Your task to perform on an android device: refresh tabs in the chrome app Image 0: 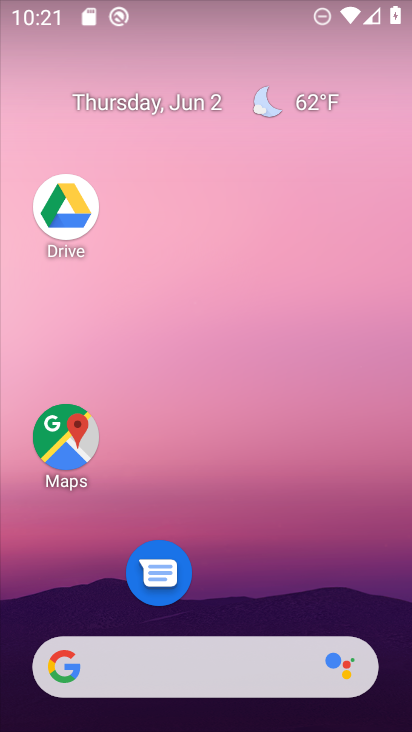
Step 0: drag from (246, 619) to (230, 76)
Your task to perform on an android device: refresh tabs in the chrome app Image 1: 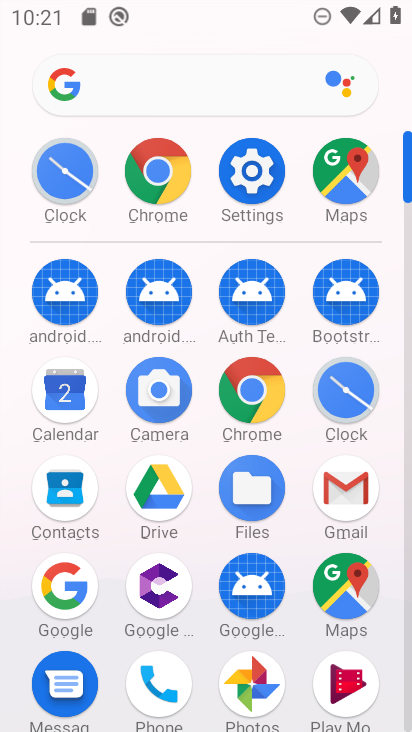
Step 1: click (140, 170)
Your task to perform on an android device: refresh tabs in the chrome app Image 2: 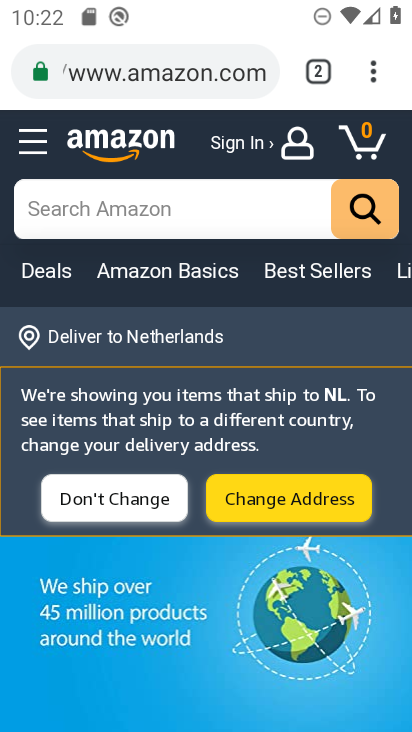
Step 2: click (366, 83)
Your task to perform on an android device: refresh tabs in the chrome app Image 3: 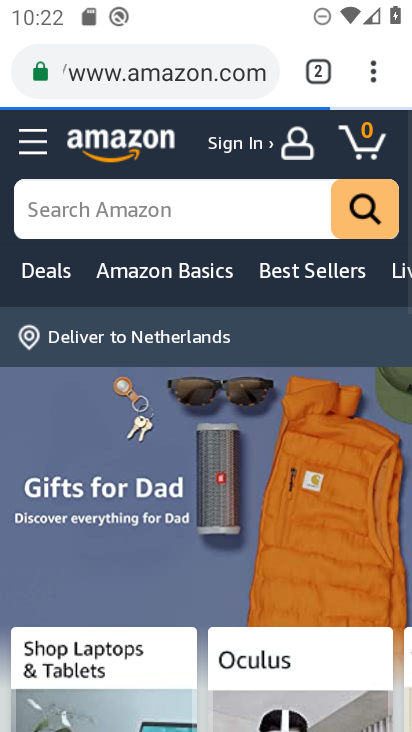
Step 3: click (375, 78)
Your task to perform on an android device: refresh tabs in the chrome app Image 4: 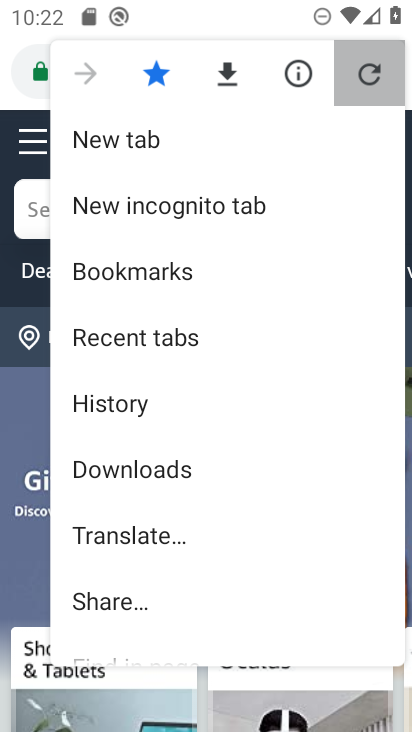
Step 4: click (363, 64)
Your task to perform on an android device: refresh tabs in the chrome app Image 5: 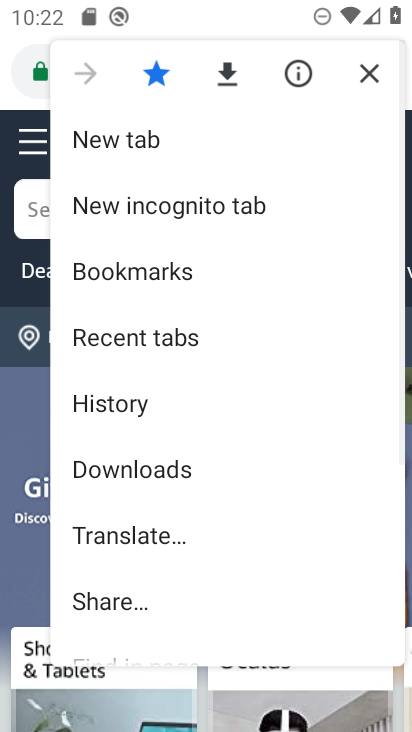
Step 5: task complete